Your task to perform on an android device: Go to calendar. Show me events next week Image 0: 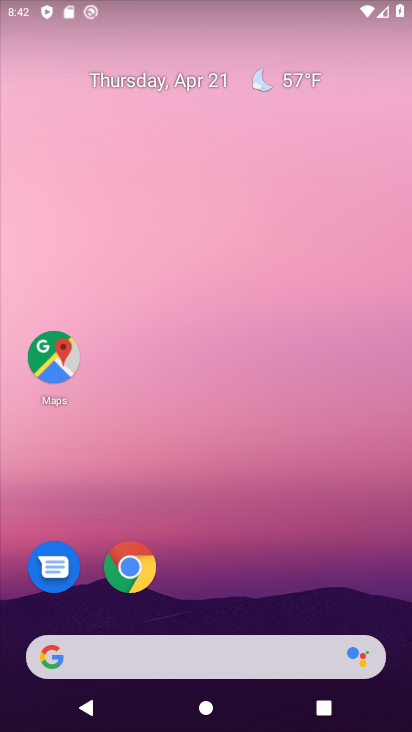
Step 0: drag from (220, 614) to (144, 3)
Your task to perform on an android device: Go to calendar. Show me events next week Image 1: 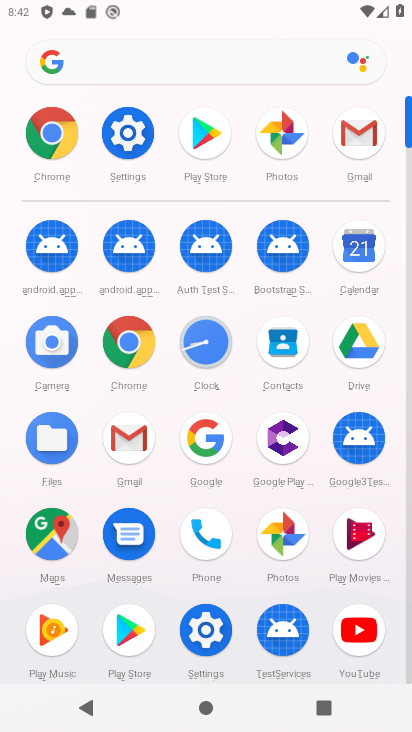
Step 1: click (356, 249)
Your task to perform on an android device: Go to calendar. Show me events next week Image 2: 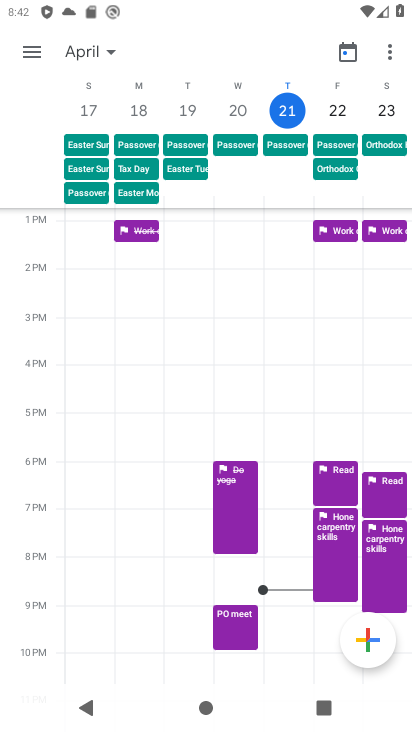
Step 2: task complete